Your task to perform on an android device: Open Google Image 0: 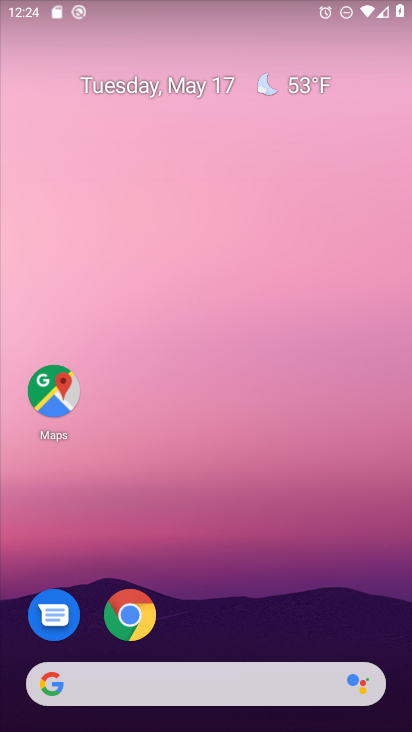
Step 0: drag from (185, 653) to (270, 305)
Your task to perform on an android device: Open Google Image 1: 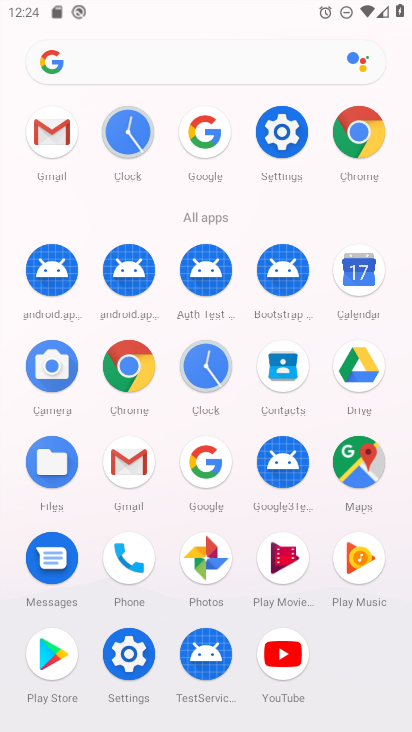
Step 1: click (220, 118)
Your task to perform on an android device: Open Google Image 2: 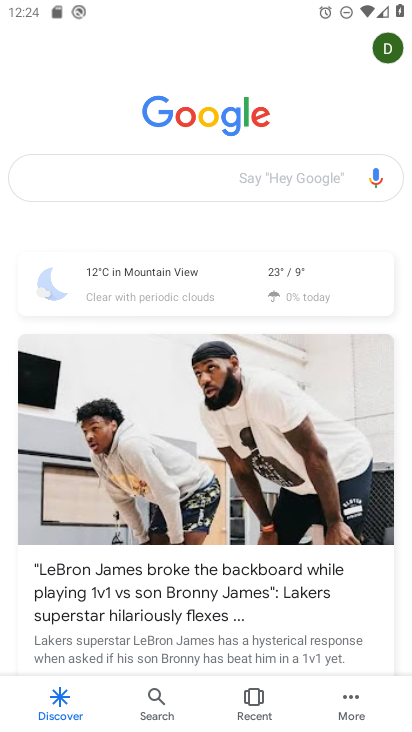
Step 2: task complete